Your task to perform on an android device: remove spam from my inbox in the gmail app Image 0: 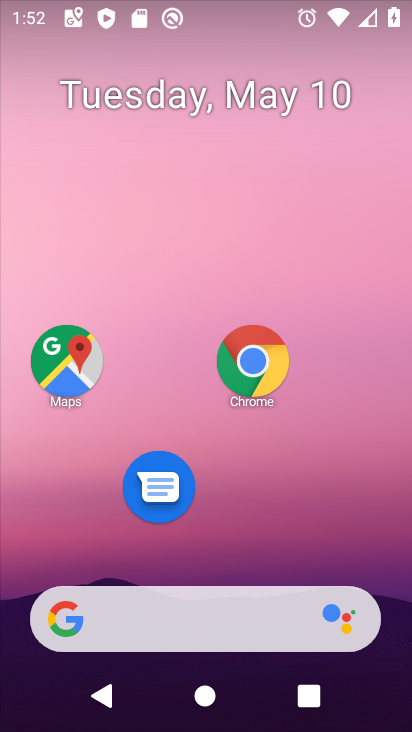
Step 0: drag from (354, 503) to (294, 129)
Your task to perform on an android device: remove spam from my inbox in the gmail app Image 1: 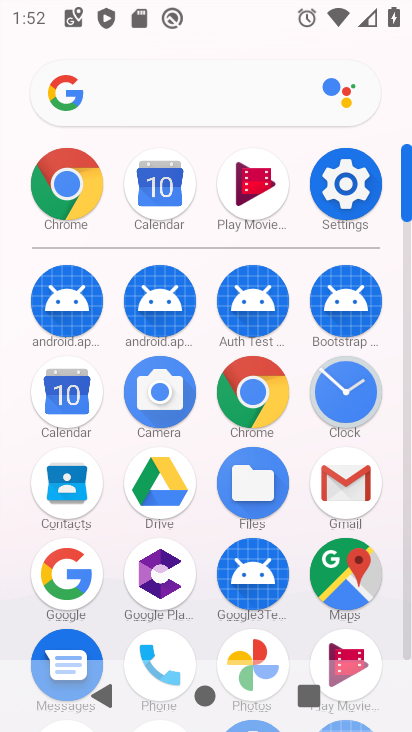
Step 1: click (334, 480)
Your task to perform on an android device: remove spam from my inbox in the gmail app Image 2: 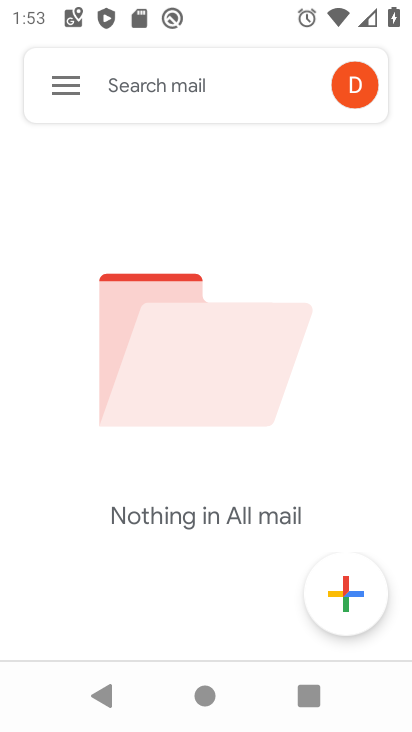
Step 2: click (61, 90)
Your task to perform on an android device: remove spam from my inbox in the gmail app Image 3: 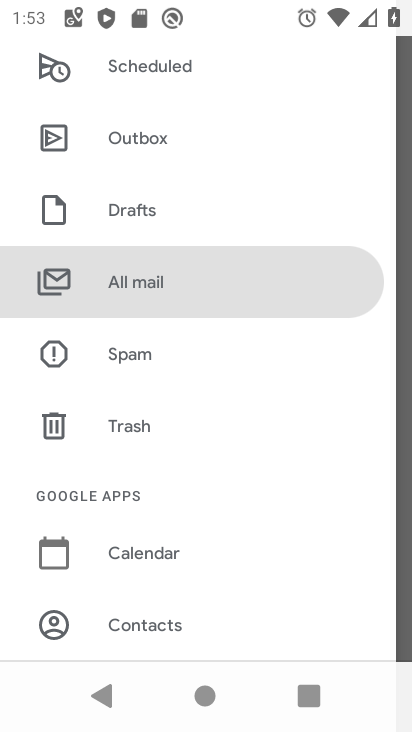
Step 3: click (69, 341)
Your task to perform on an android device: remove spam from my inbox in the gmail app Image 4: 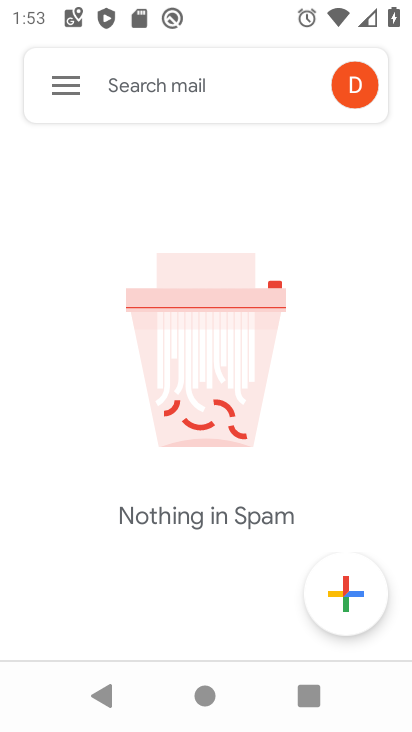
Step 4: task complete